Your task to perform on an android device: change the clock display to analog Image 0: 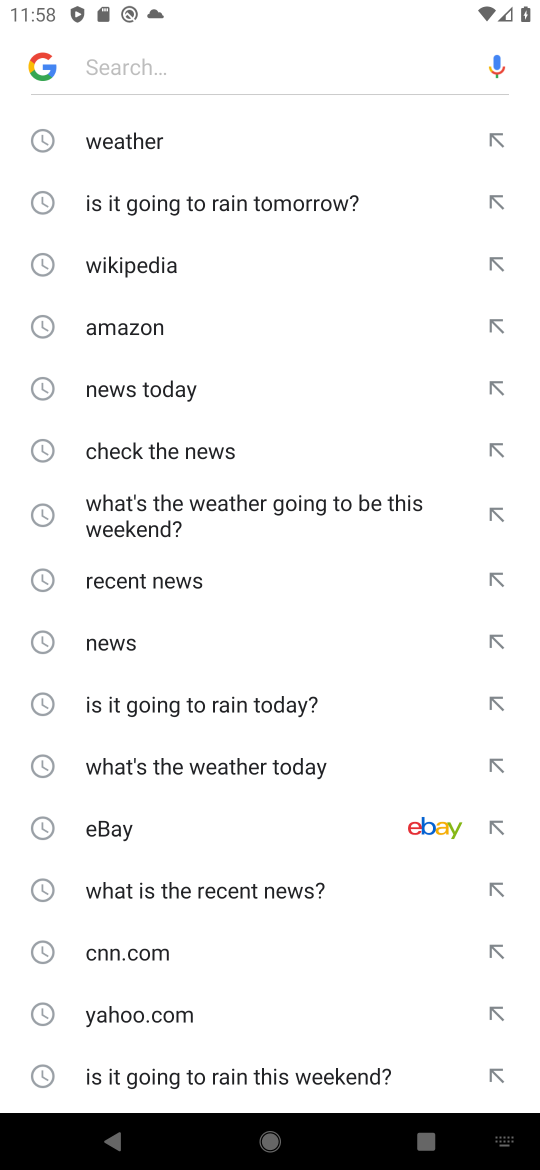
Step 0: press home button
Your task to perform on an android device: change the clock display to analog Image 1: 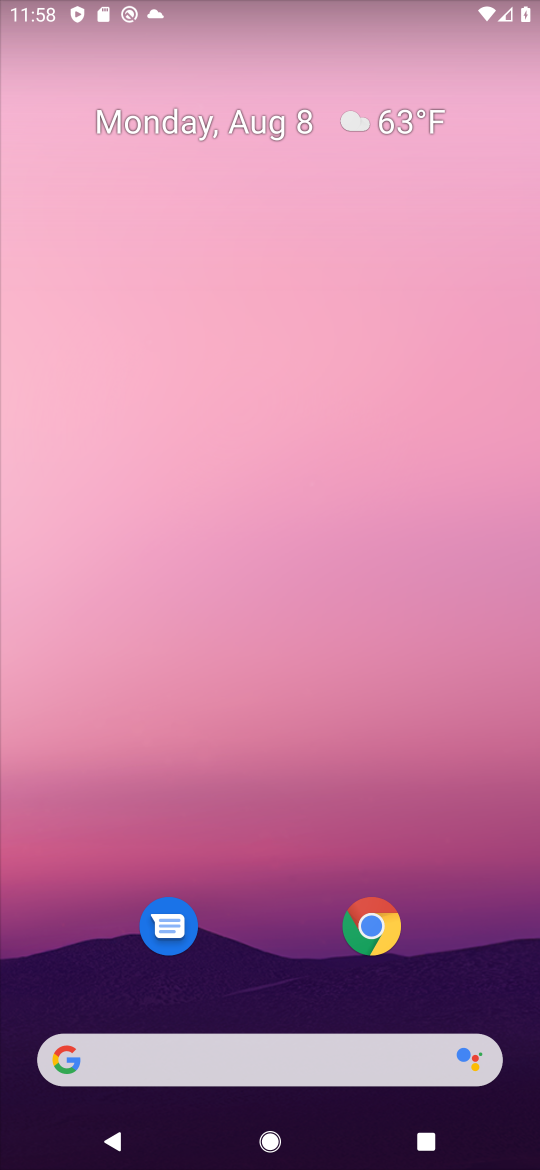
Step 1: drag from (121, 875) to (366, 175)
Your task to perform on an android device: change the clock display to analog Image 2: 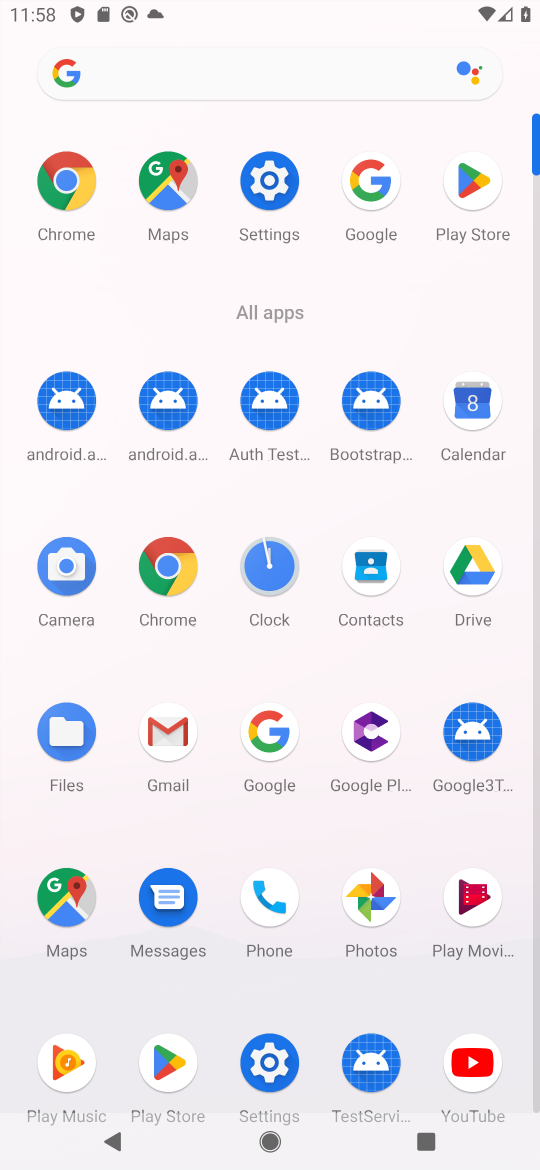
Step 2: click (280, 563)
Your task to perform on an android device: change the clock display to analog Image 3: 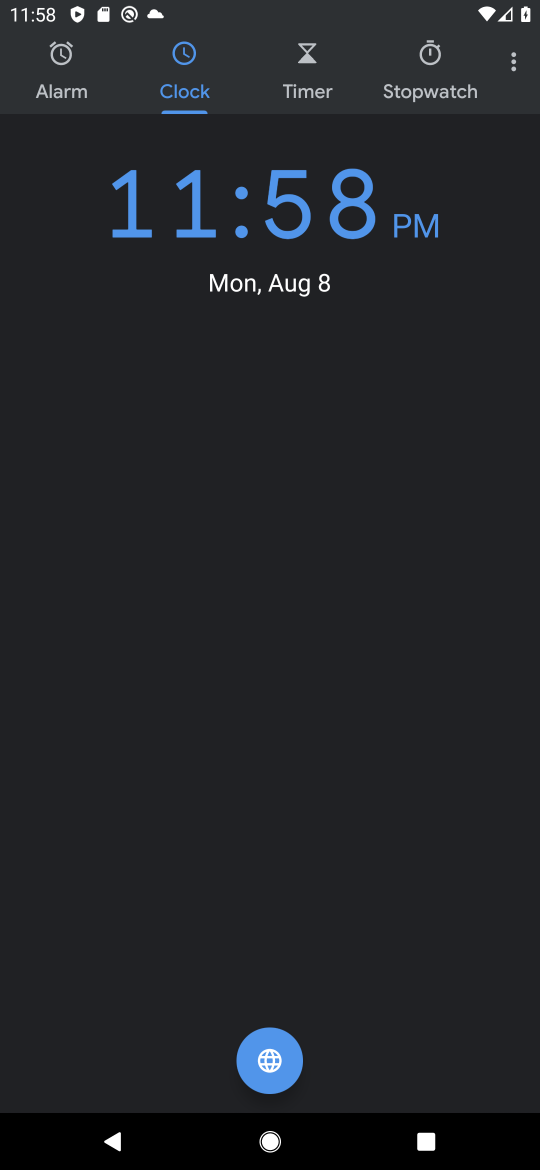
Step 3: click (521, 65)
Your task to perform on an android device: change the clock display to analog Image 4: 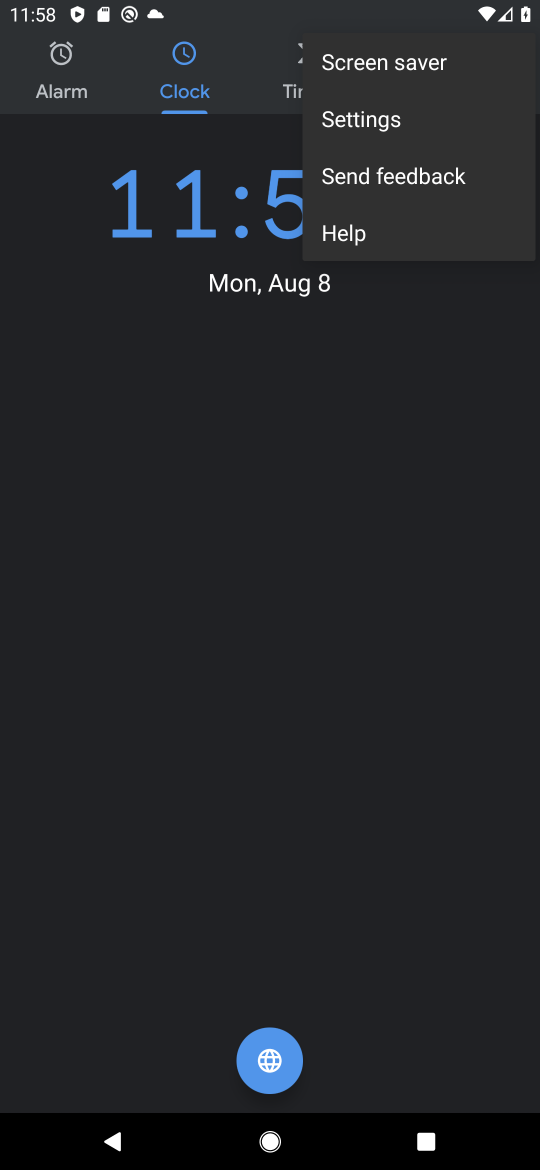
Step 4: click (419, 118)
Your task to perform on an android device: change the clock display to analog Image 5: 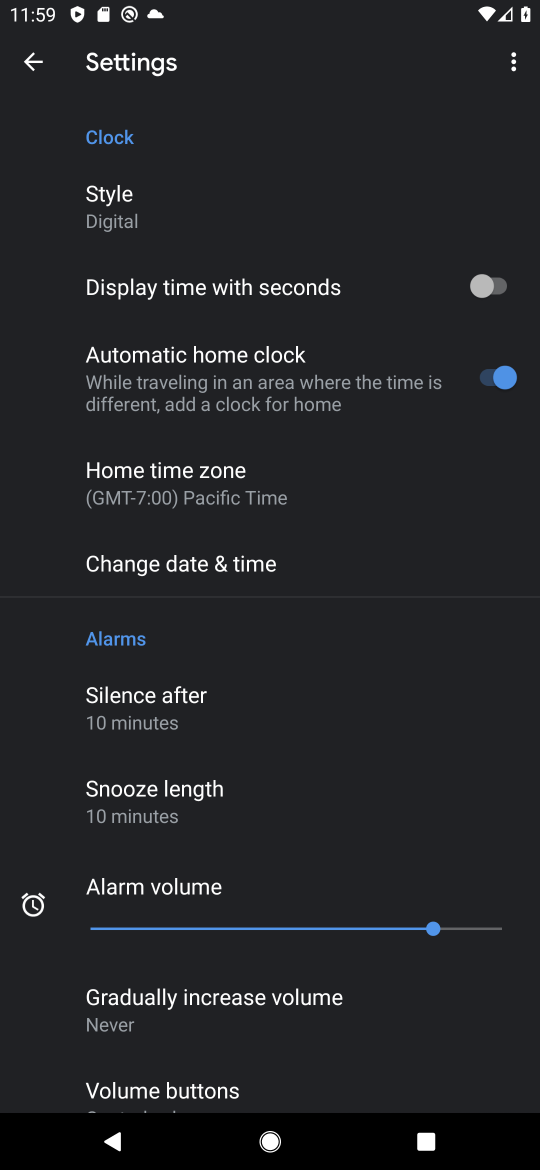
Step 5: click (103, 214)
Your task to perform on an android device: change the clock display to analog Image 6: 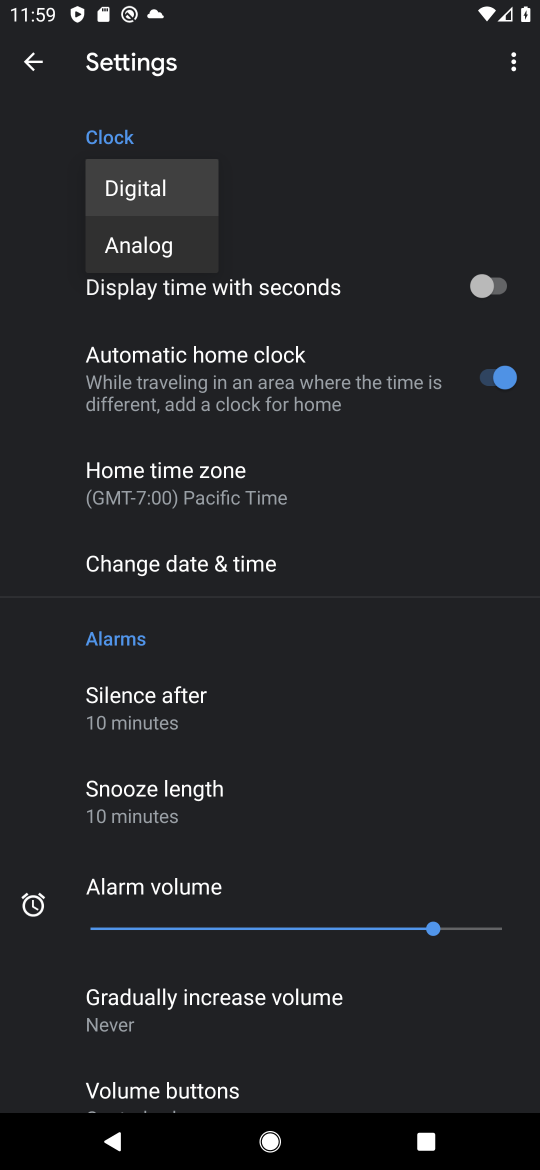
Step 6: click (132, 259)
Your task to perform on an android device: change the clock display to analog Image 7: 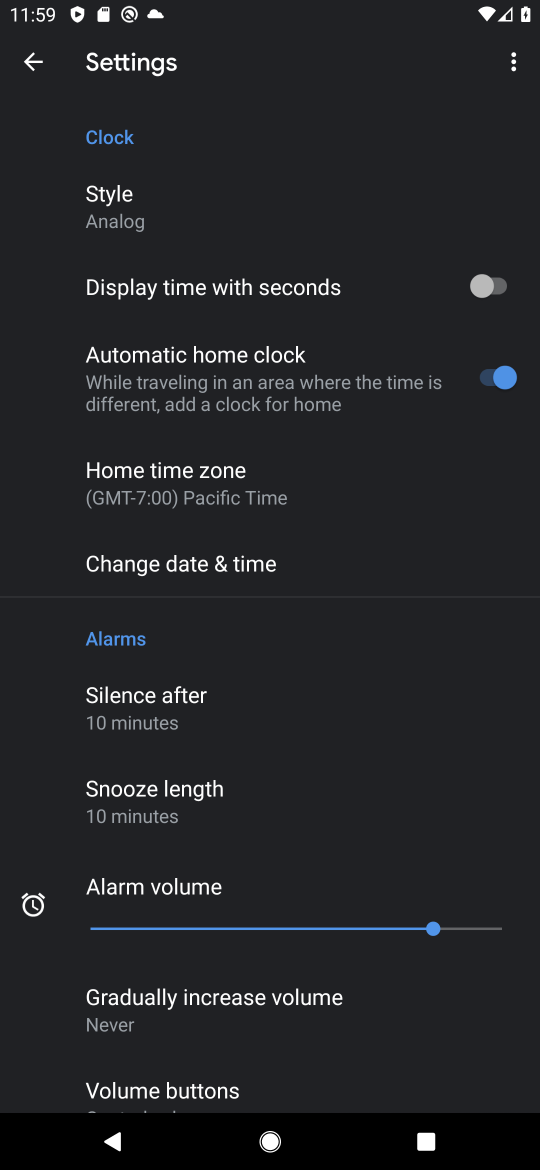
Step 7: task complete